Your task to perform on an android device: Go to Google maps Image 0: 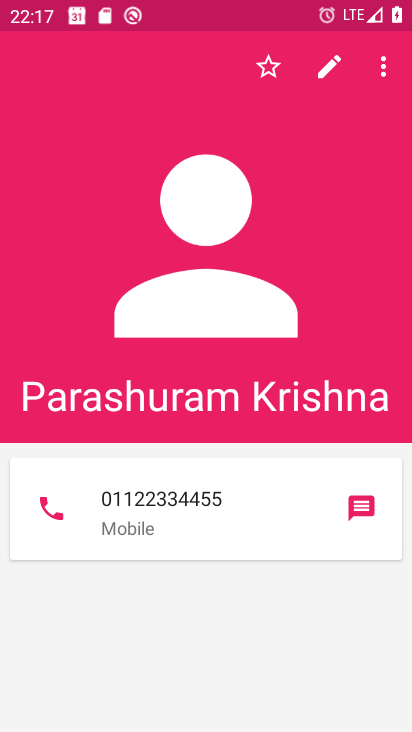
Step 0: press home button
Your task to perform on an android device: Go to Google maps Image 1: 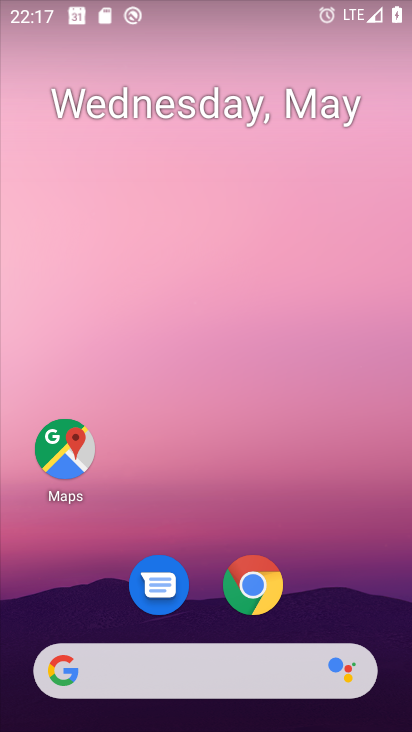
Step 1: click (65, 445)
Your task to perform on an android device: Go to Google maps Image 2: 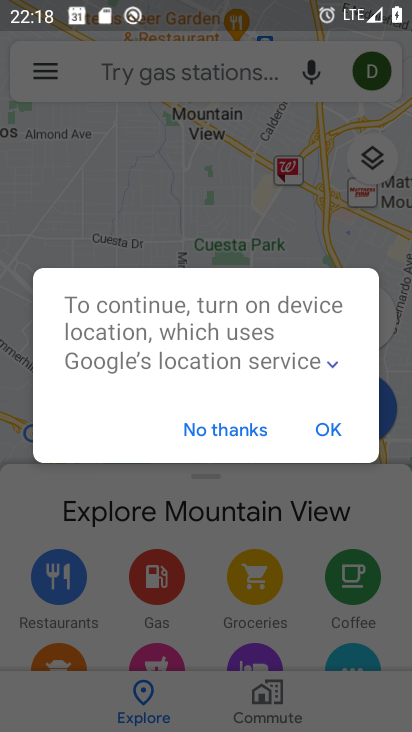
Step 2: click (217, 422)
Your task to perform on an android device: Go to Google maps Image 3: 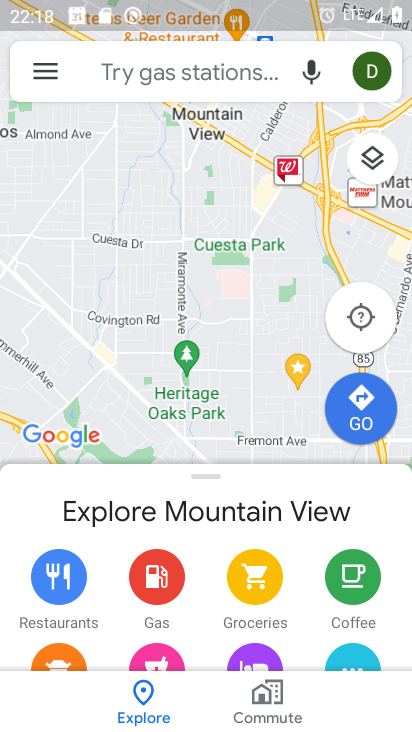
Step 3: task complete